Your task to perform on an android device: Clear all items from cart on costco. Search for "razer blade" on costco, select the first entry, and add it to the cart. Image 0: 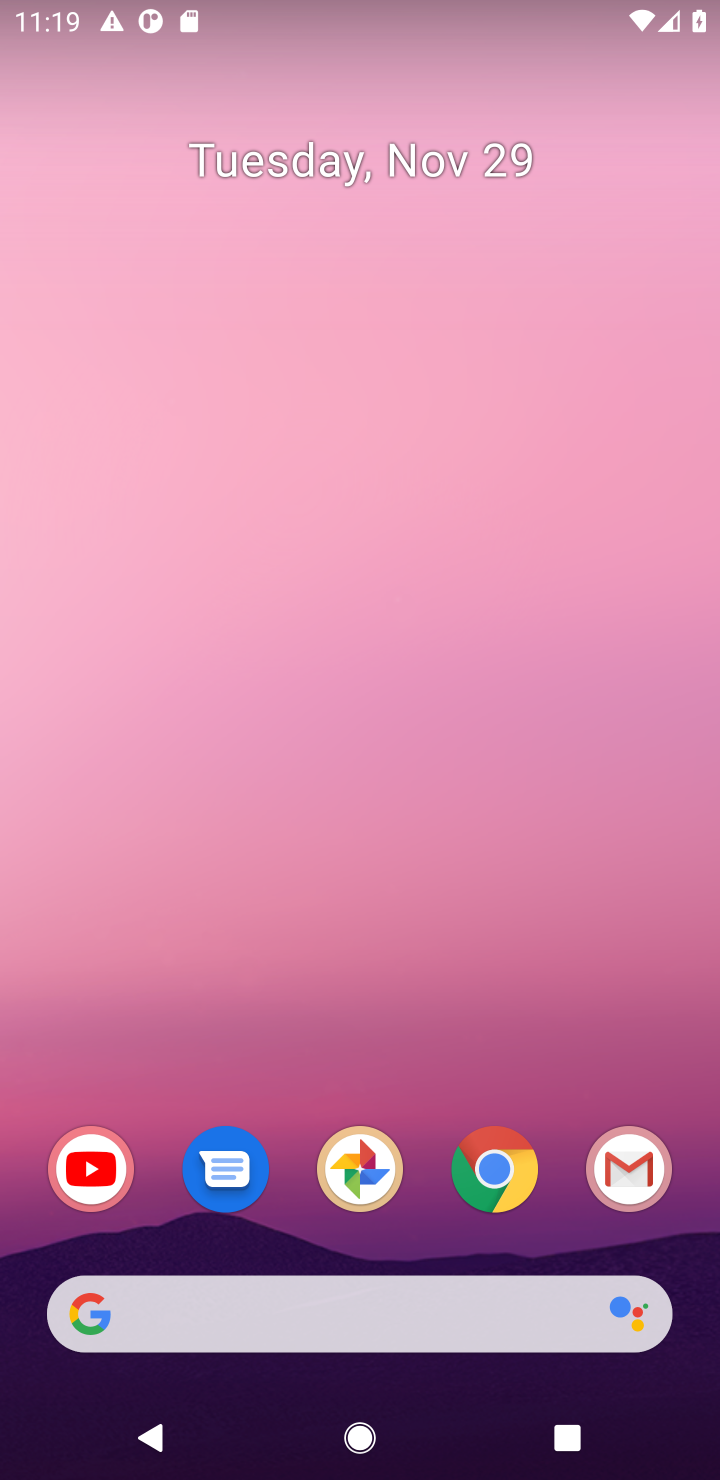
Step 0: click (414, 1319)
Your task to perform on an android device: Clear all items from cart on costco. Search for "razer blade" on costco, select the first entry, and add it to the cart. Image 1: 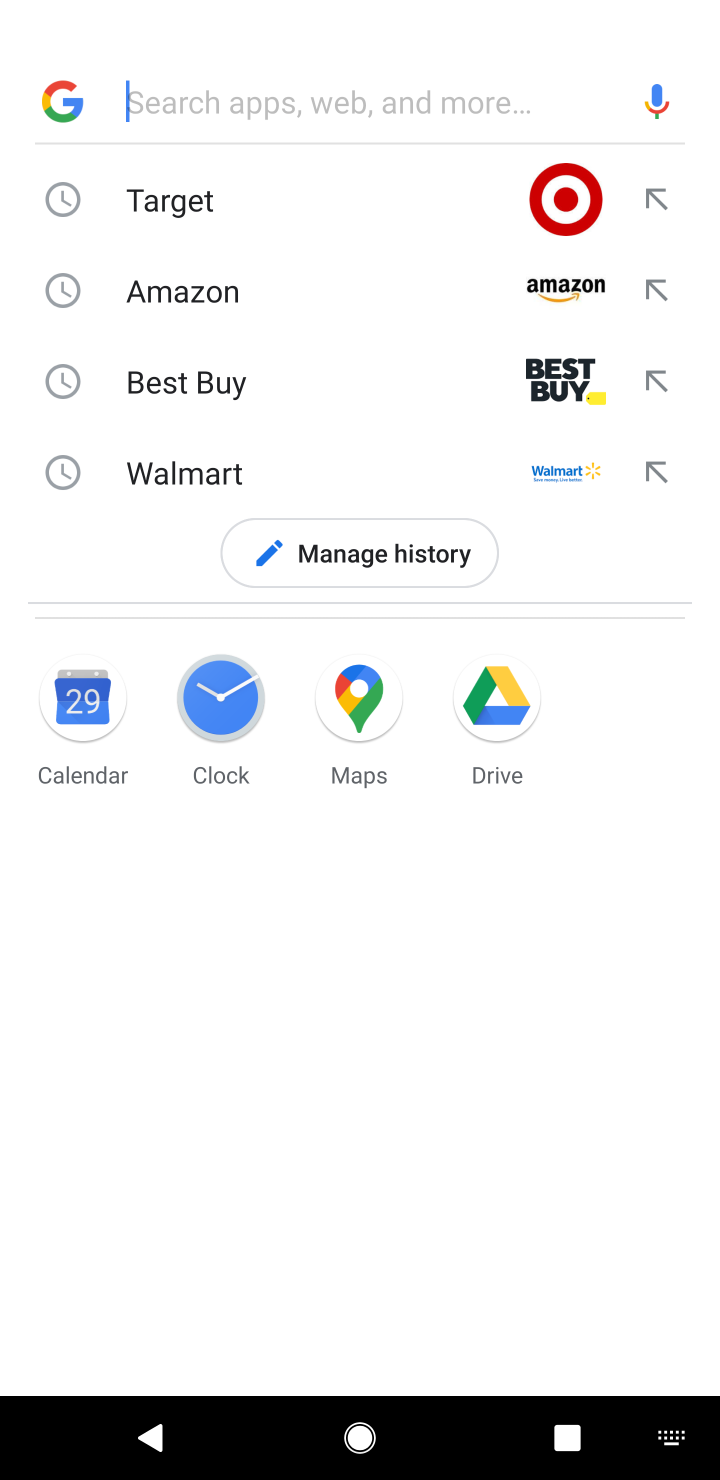
Step 1: type "costco.com"
Your task to perform on an android device: Clear all items from cart on costco. Search for "razer blade" on costco, select the first entry, and add it to the cart. Image 2: 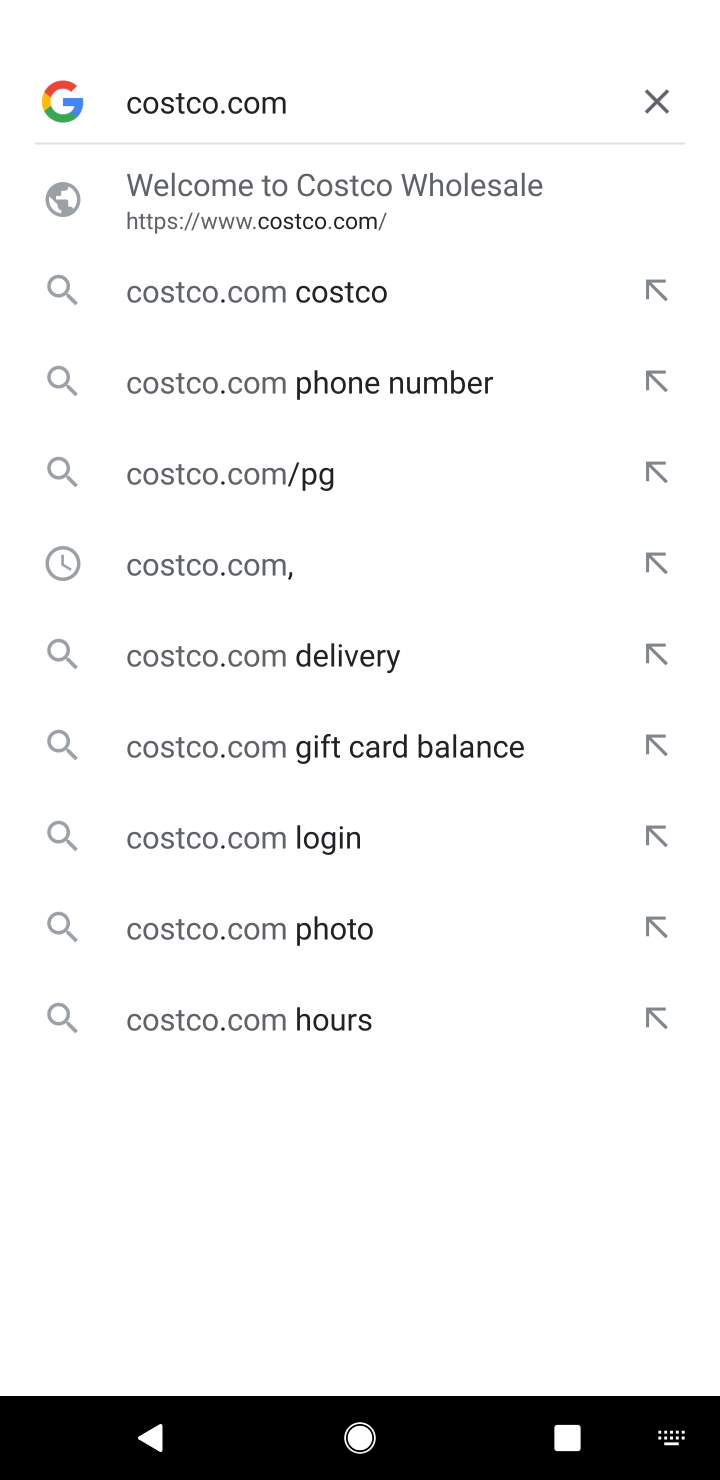
Step 2: click (345, 170)
Your task to perform on an android device: Clear all items from cart on costco. Search for "razer blade" on costco, select the first entry, and add it to the cart. Image 3: 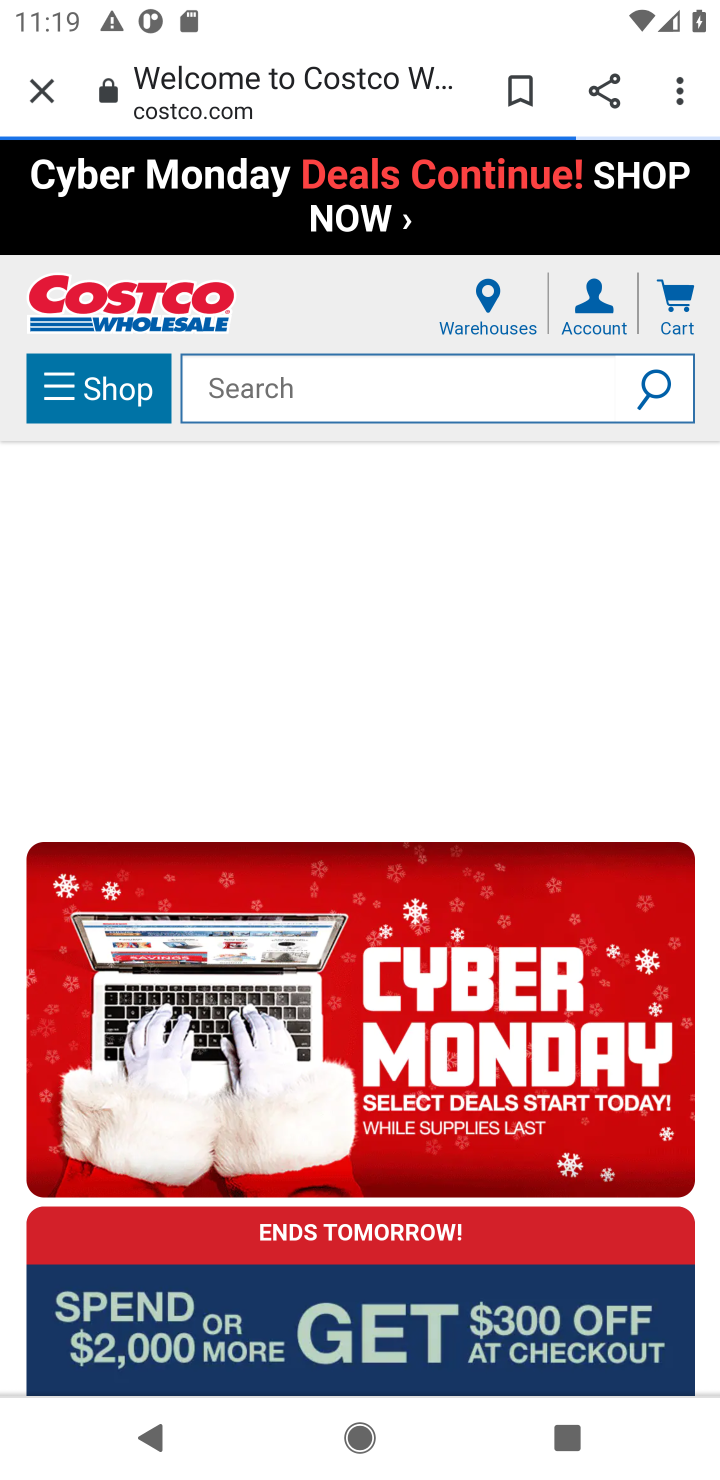
Step 3: click (252, 374)
Your task to perform on an android device: Clear all items from cart on costco. Search for "razer blade" on costco, select the first entry, and add it to the cart. Image 4: 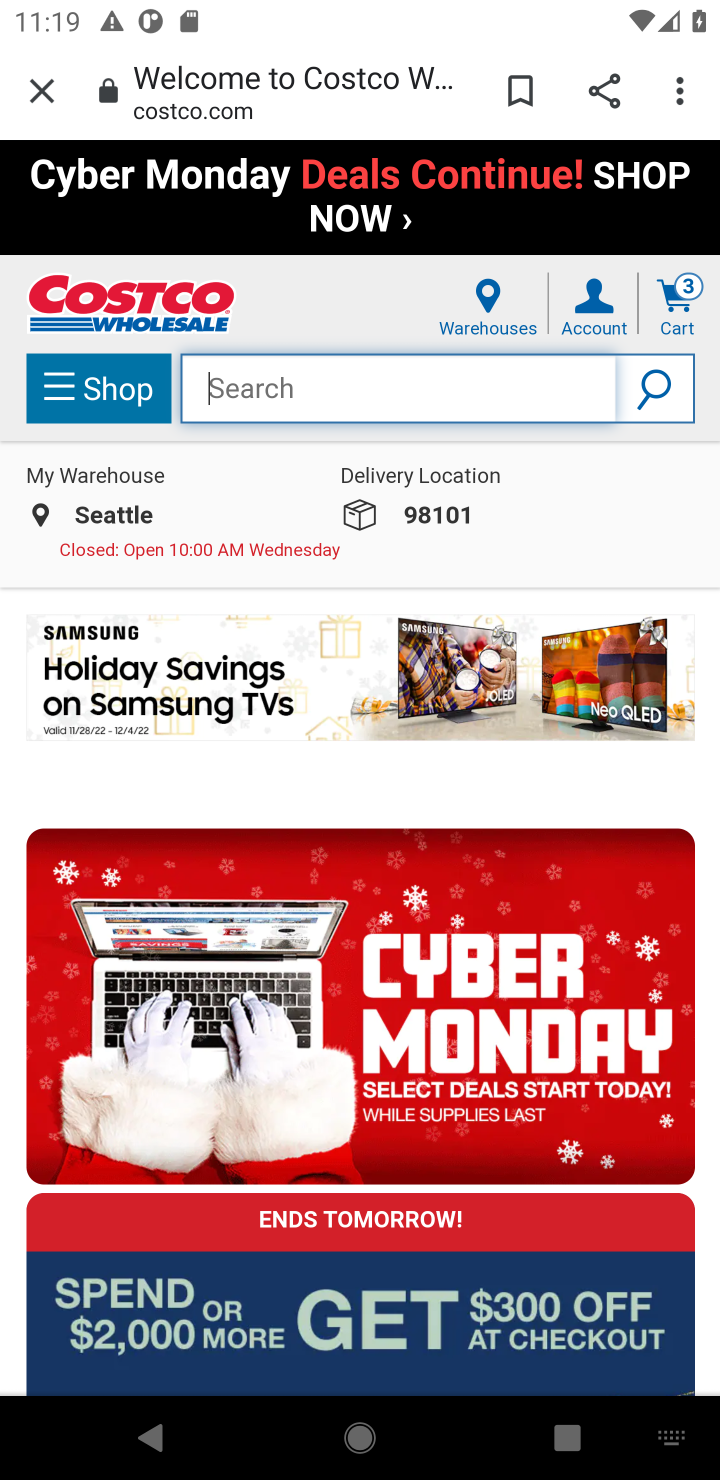
Step 4: type "razer blade"
Your task to perform on an android device: Clear all items from cart on costco. Search for "razer blade" on costco, select the first entry, and add it to the cart. Image 5: 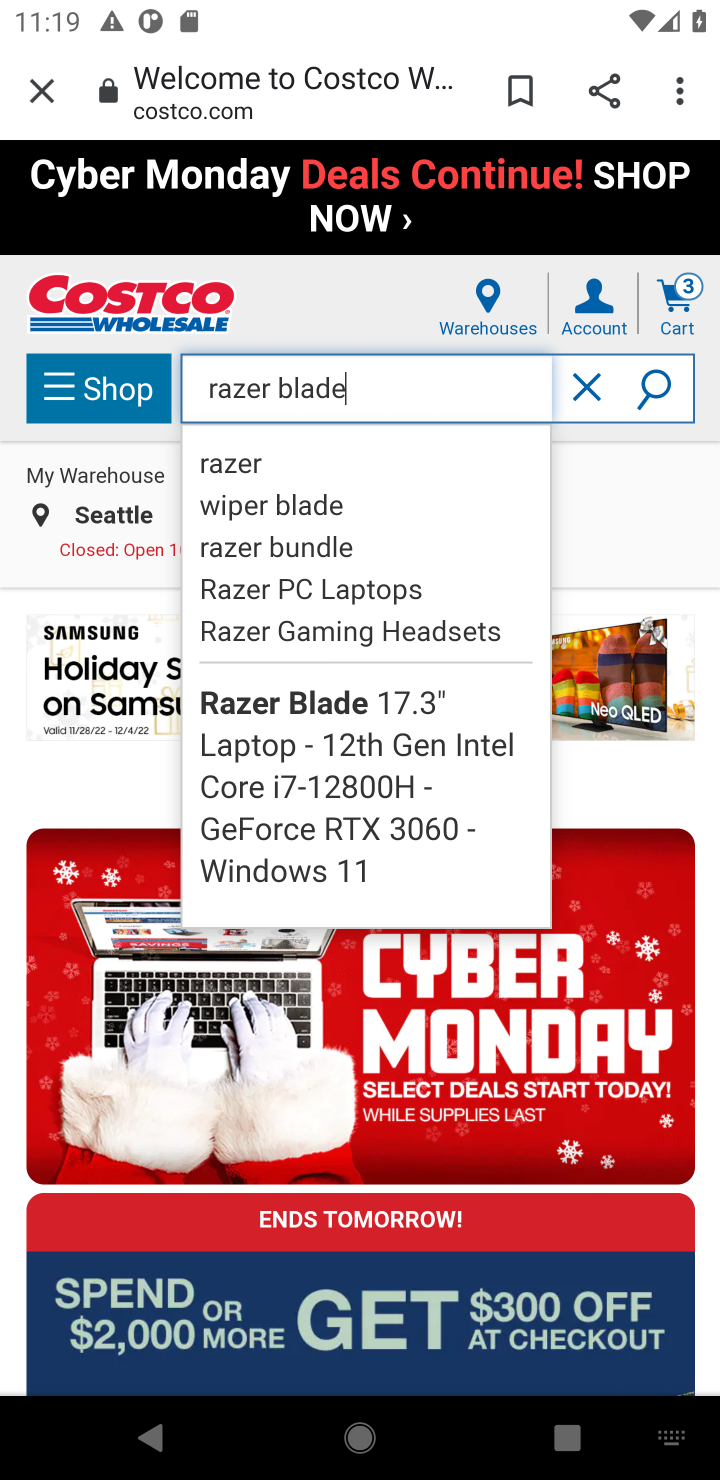
Step 5: type "'"
Your task to perform on an android device: Clear all items from cart on costco. Search for "razer blade" on costco, select the first entry, and add it to the cart. Image 6: 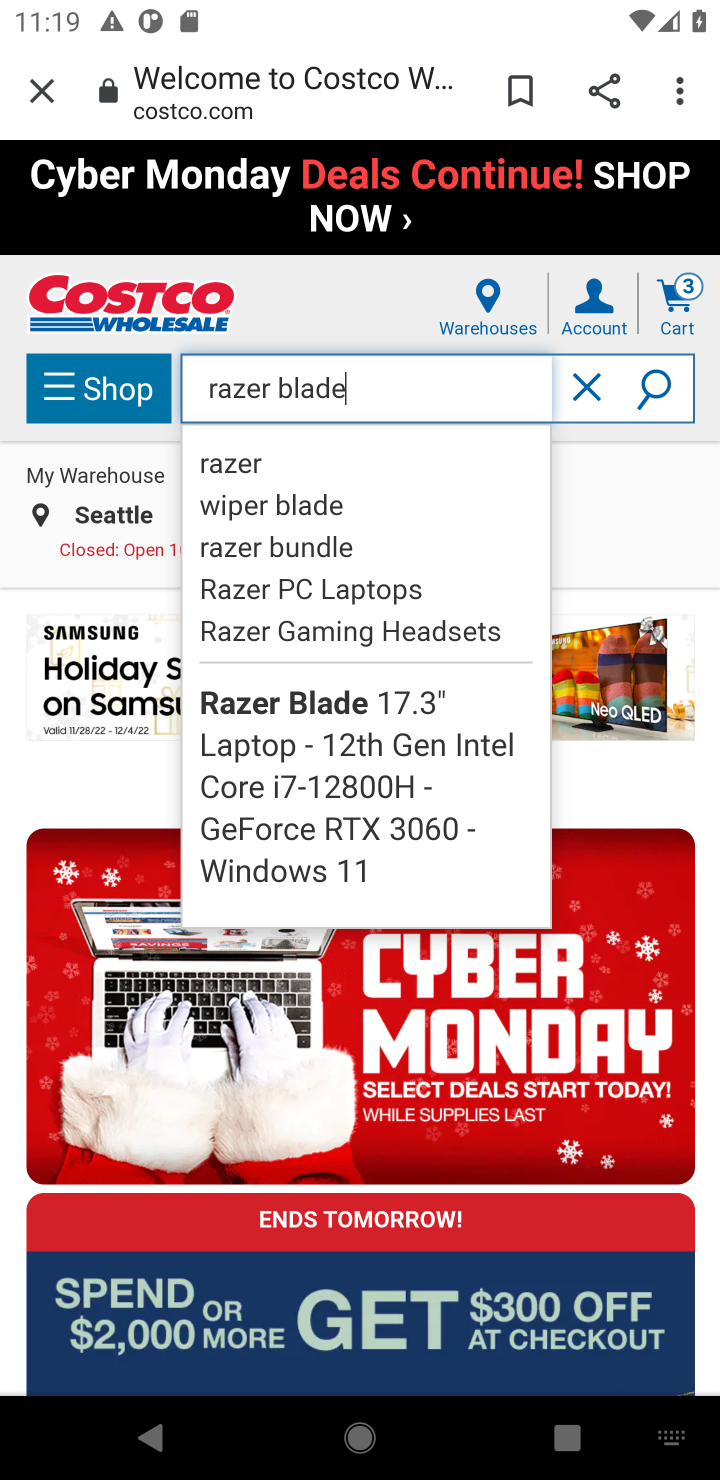
Step 6: click (646, 398)
Your task to perform on an android device: Clear all items from cart on costco. Search for "razer blade" on costco, select the first entry, and add it to the cart. Image 7: 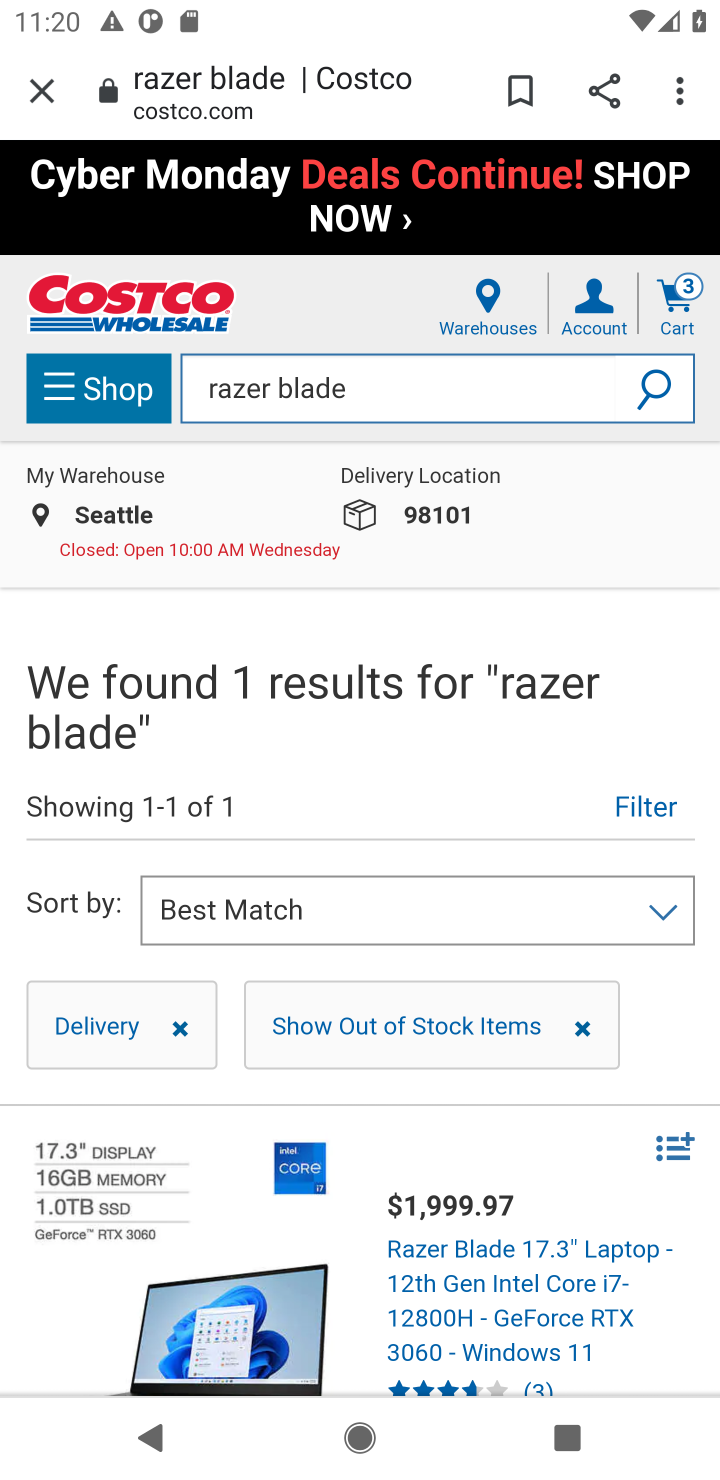
Step 7: drag from (658, 1369) to (569, 762)
Your task to perform on an android device: Clear all items from cart on costco. Search for "razer blade" on costco, select the first entry, and add it to the cart. Image 8: 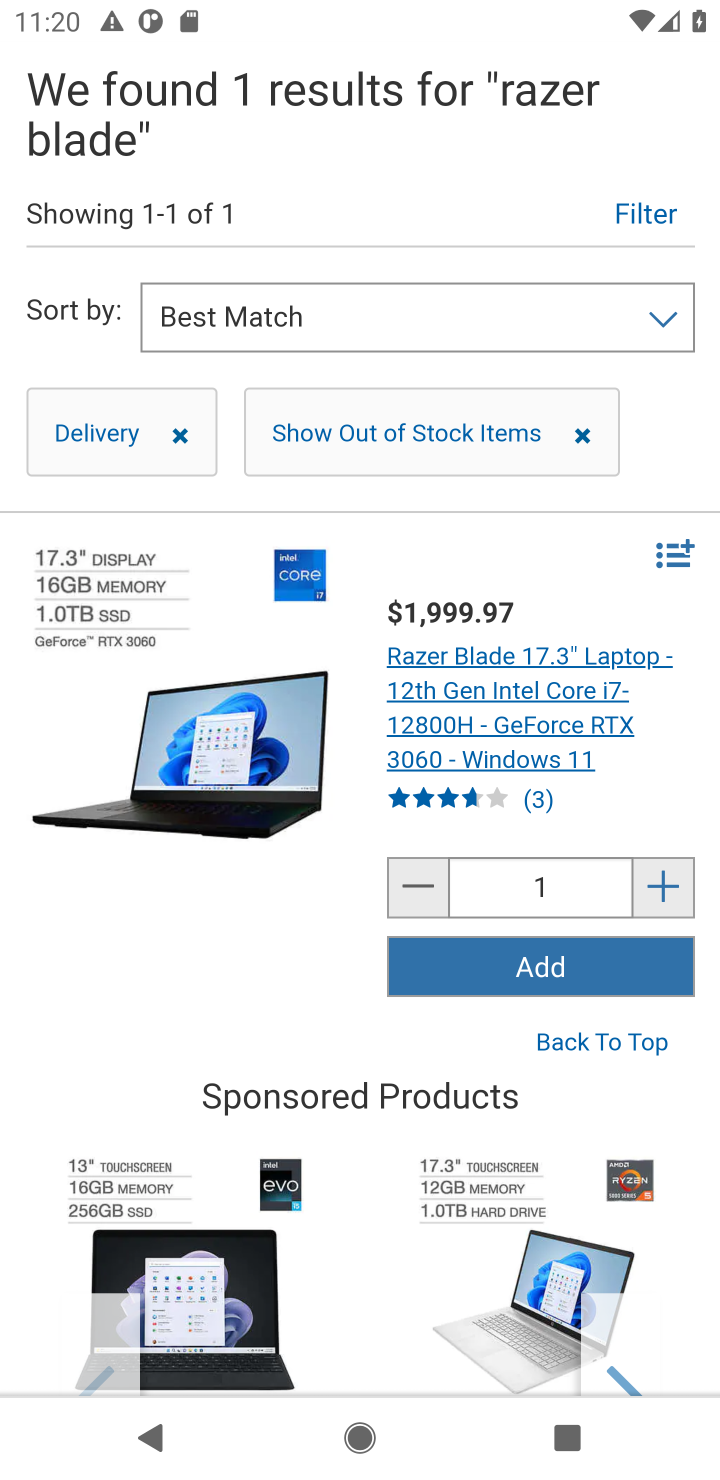
Step 8: click (548, 980)
Your task to perform on an android device: Clear all items from cart on costco. Search for "razer blade" on costco, select the first entry, and add it to the cart. Image 9: 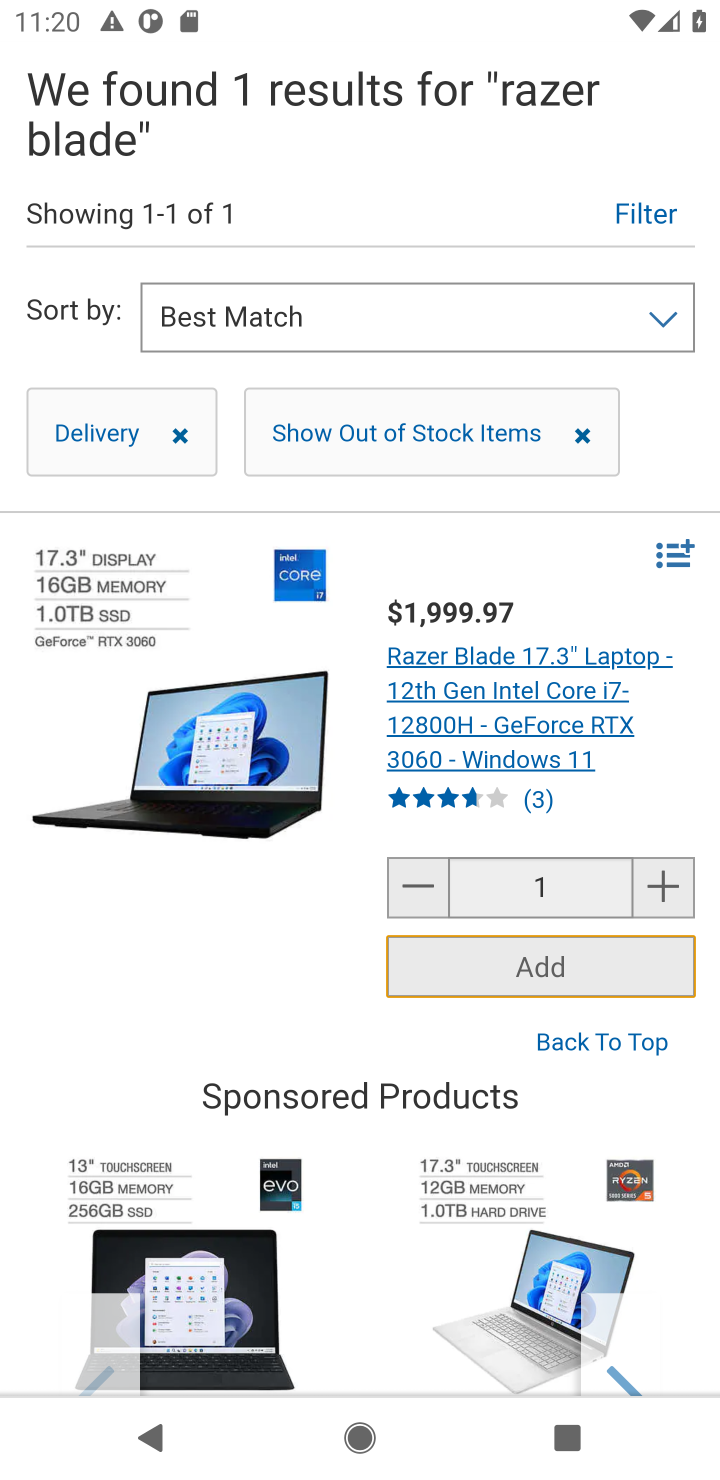
Step 9: task complete